Your task to perform on an android device: Show me recent news Image 0: 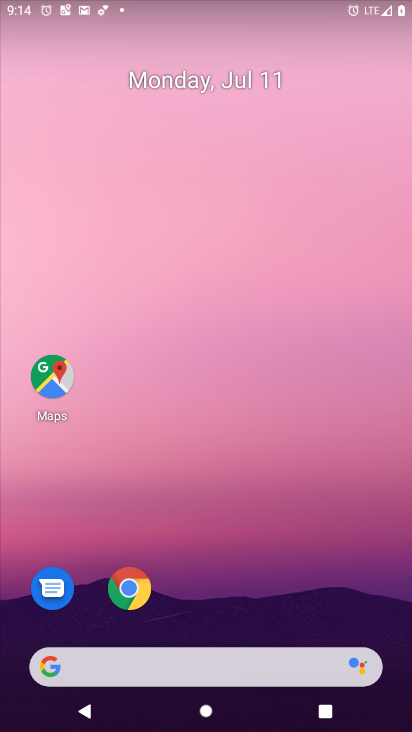
Step 0: press home button
Your task to perform on an android device: Show me recent news Image 1: 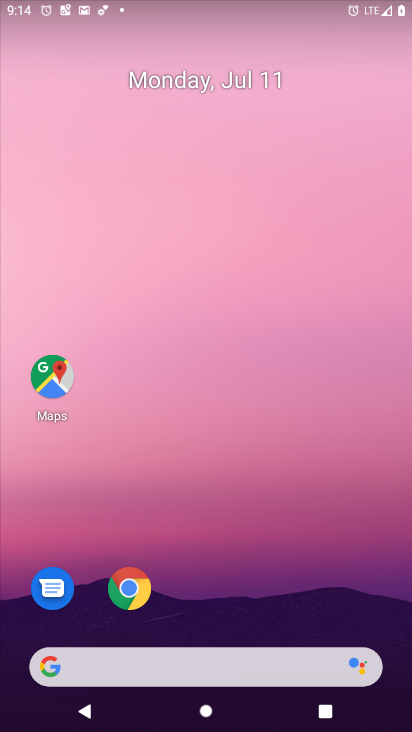
Step 1: click (174, 661)
Your task to perform on an android device: Show me recent news Image 2: 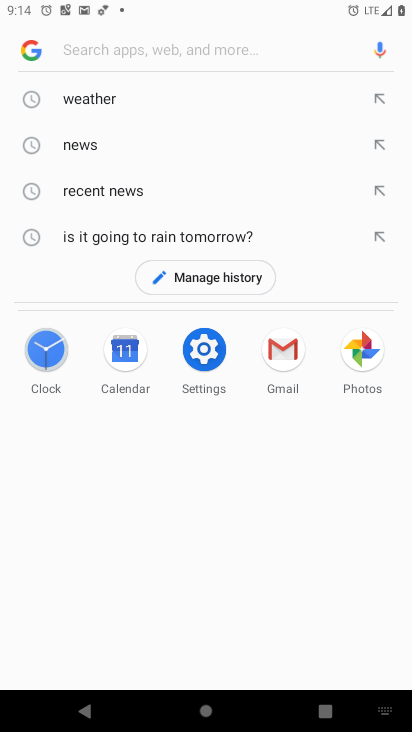
Step 2: click (122, 186)
Your task to perform on an android device: Show me recent news Image 3: 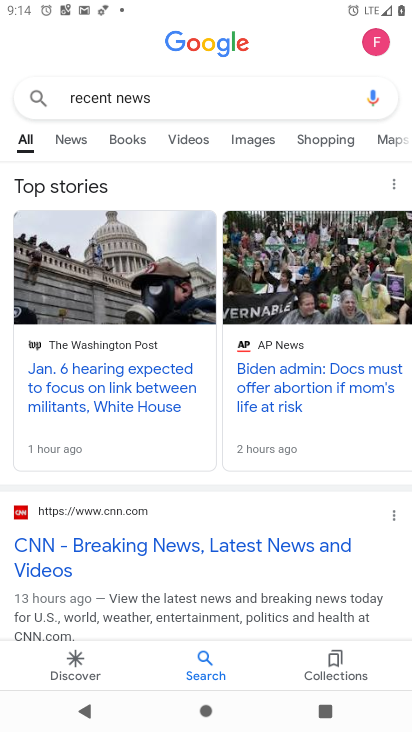
Step 3: task complete